Your task to perform on an android device: open app "LinkedIn" (install if not already installed) Image 0: 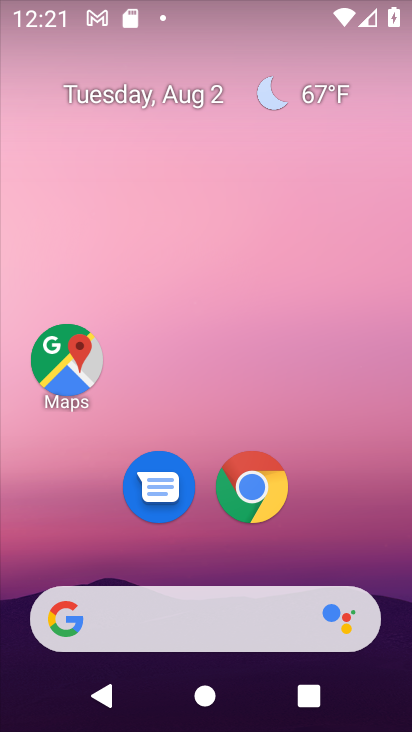
Step 0: drag from (215, 641) to (235, 177)
Your task to perform on an android device: open app "LinkedIn" (install if not already installed) Image 1: 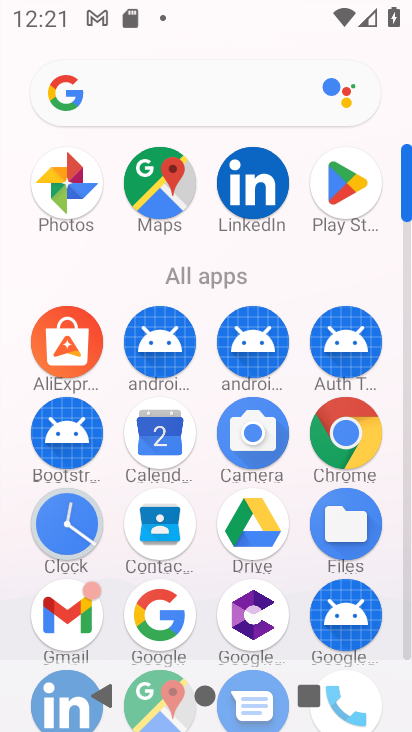
Step 1: click (345, 190)
Your task to perform on an android device: open app "LinkedIn" (install if not already installed) Image 2: 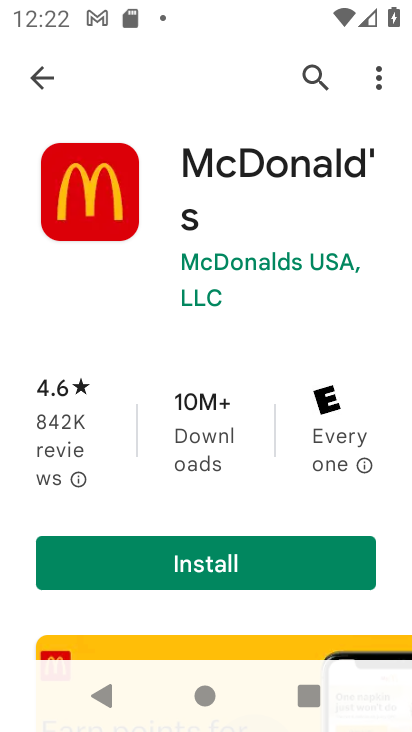
Step 2: click (36, 76)
Your task to perform on an android device: open app "LinkedIn" (install if not already installed) Image 3: 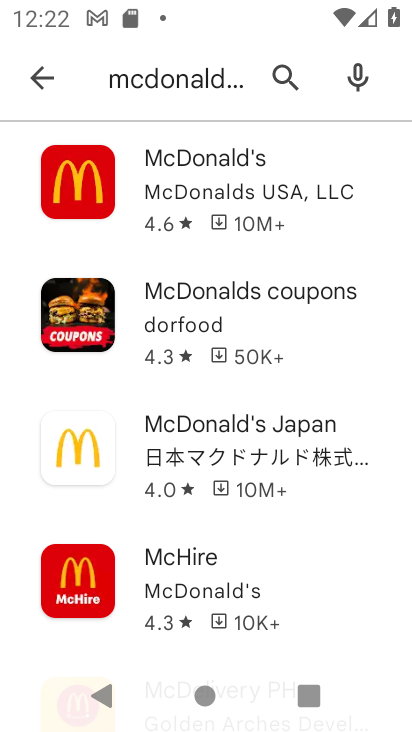
Step 3: click (36, 76)
Your task to perform on an android device: open app "LinkedIn" (install if not already installed) Image 4: 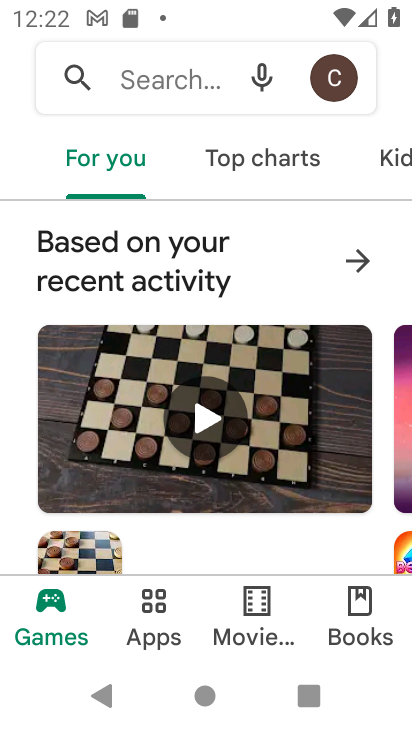
Step 4: click (97, 94)
Your task to perform on an android device: open app "LinkedIn" (install if not already installed) Image 5: 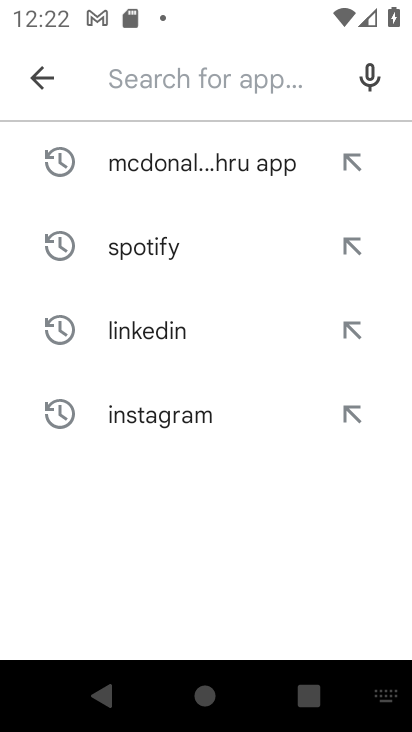
Step 5: type "LinkedIn"
Your task to perform on an android device: open app "LinkedIn" (install if not already installed) Image 6: 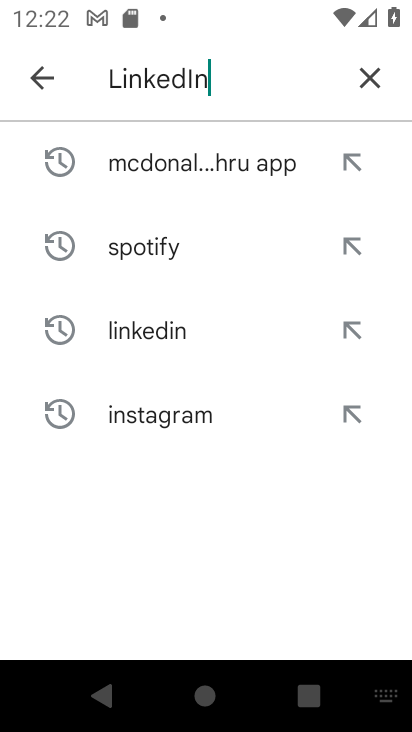
Step 6: type ""
Your task to perform on an android device: open app "LinkedIn" (install if not already installed) Image 7: 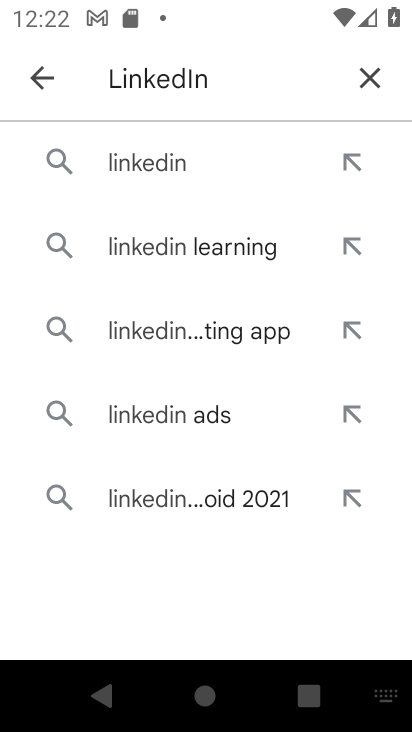
Step 7: click (128, 172)
Your task to perform on an android device: open app "LinkedIn" (install if not already installed) Image 8: 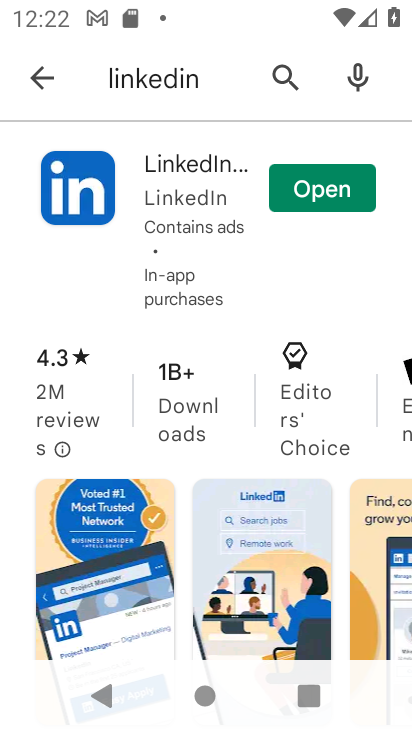
Step 8: click (289, 195)
Your task to perform on an android device: open app "LinkedIn" (install if not already installed) Image 9: 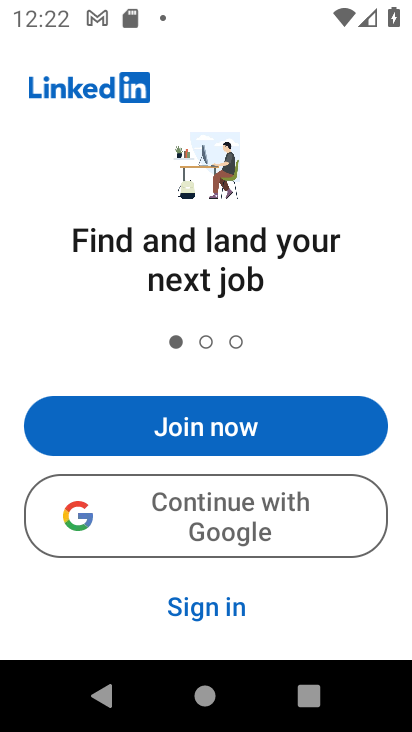
Step 9: task complete